Your task to perform on an android device: Open Google Chrome and open the bookmarks view Image 0: 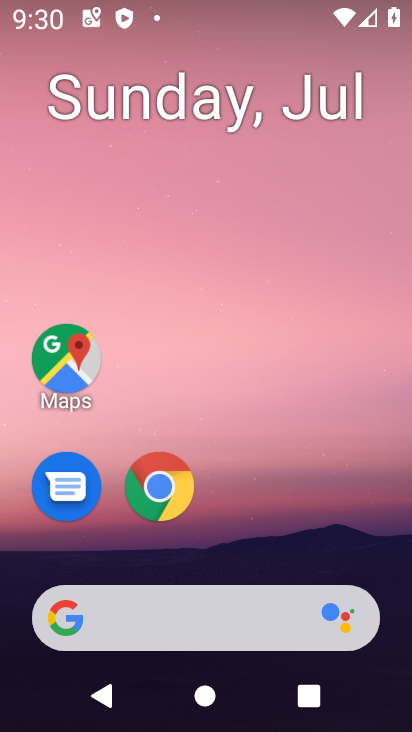
Step 0: press home button
Your task to perform on an android device: Open Google Chrome and open the bookmarks view Image 1: 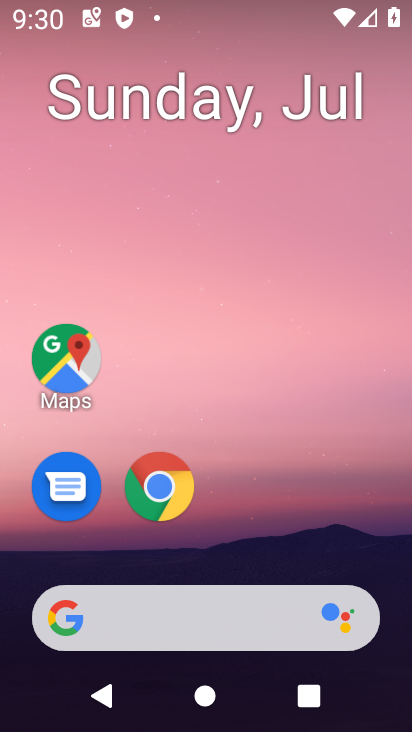
Step 1: drag from (365, 507) to (327, 100)
Your task to perform on an android device: Open Google Chrome and open the bookmarks view Image 2: 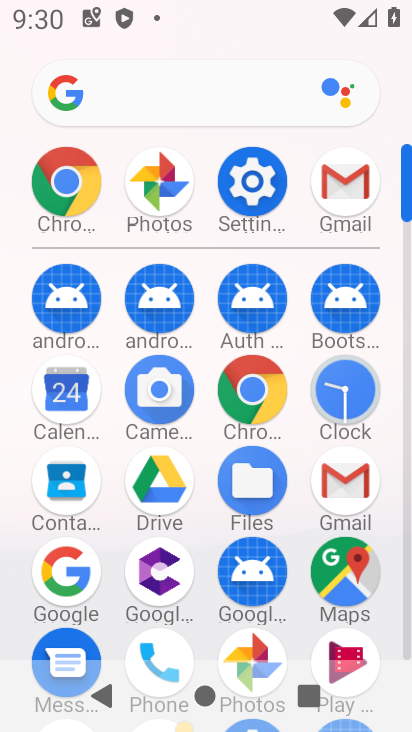
Step 2: click (263, 391)
Your task to perform on an android device: Open Google Chrome and open the bookmarks view Image 3: 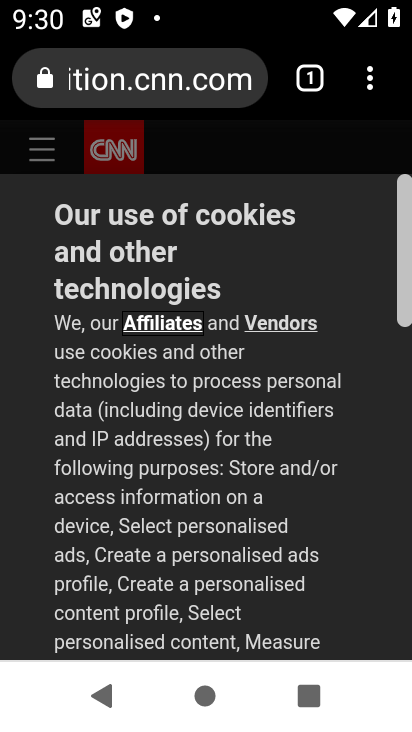
Step 3: click (369, 88)
Your task to perform on an android device: Open Google Chrome and open the bookmarks view Image 4: 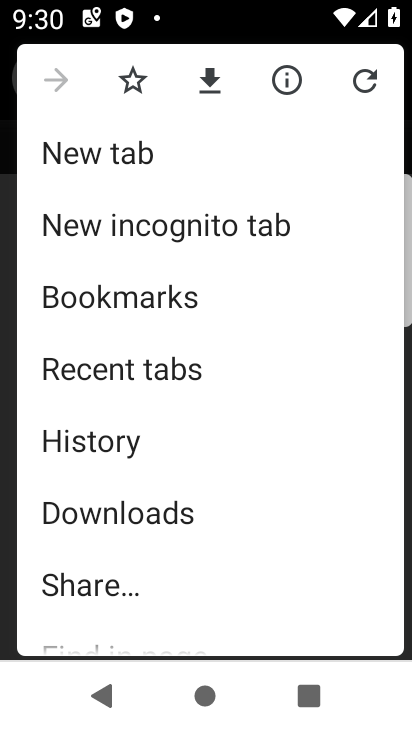
Step 4: click (207, 299)
Your task to perform on an android device: Open Google Chrome and open the bookmarks view Image 5: 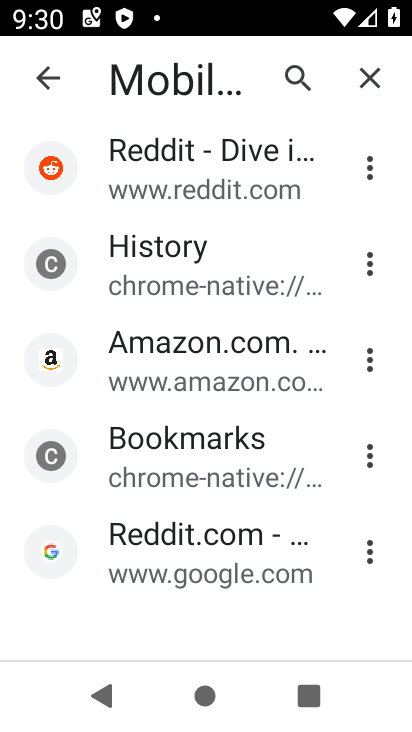
Step 5: task complete